Your task to perform on an android device: change the clock style Image 0: 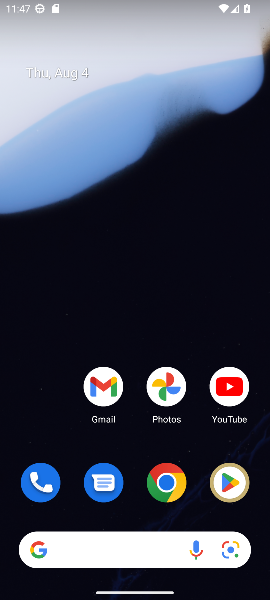
Step 0: drag from (132, 442) to (134, 110)
Your task to perform on an android device: change the clock style Image 1: 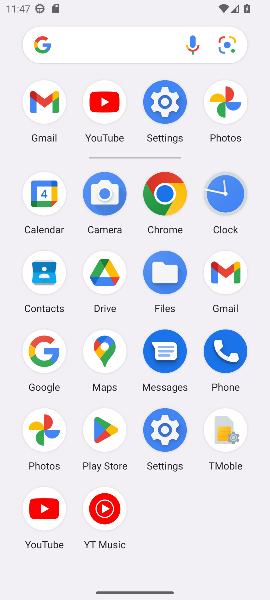
Step 1: click (222, 197)
Your task to perform on an android device: change the clock style Image 2: 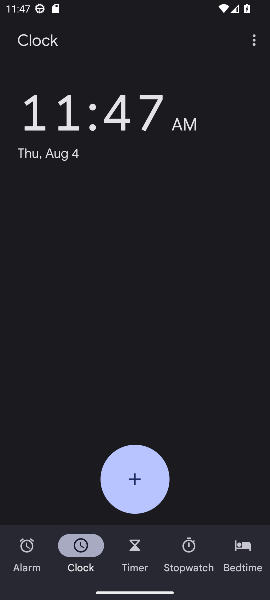
Step 2: click (246, 37)
Your task to perform on an android device: change the clock style Image 3: 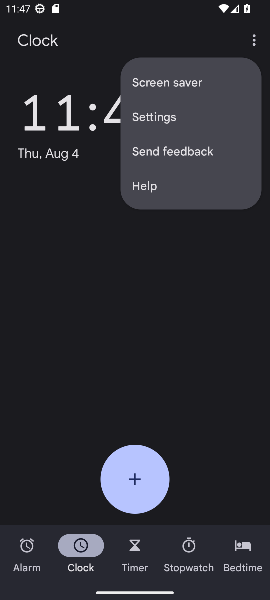
Step 3: click (181, 108)
Your task to perform on an android device: change the clock style Image 4: 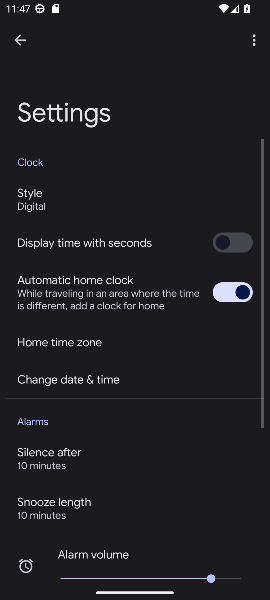
Step 4: click (73, 195)
Your task to perform on an android device: change the clock style Image 5: 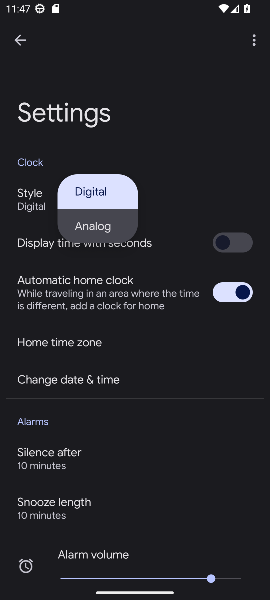
Step 5: click (98, 224)
Your task to perform on an android device: change the clock style Image 6: 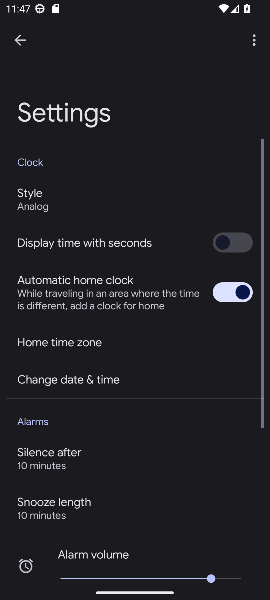
Step 6: task complete